Your task to perform on an android device: empty trash in the gmail app Image 0: 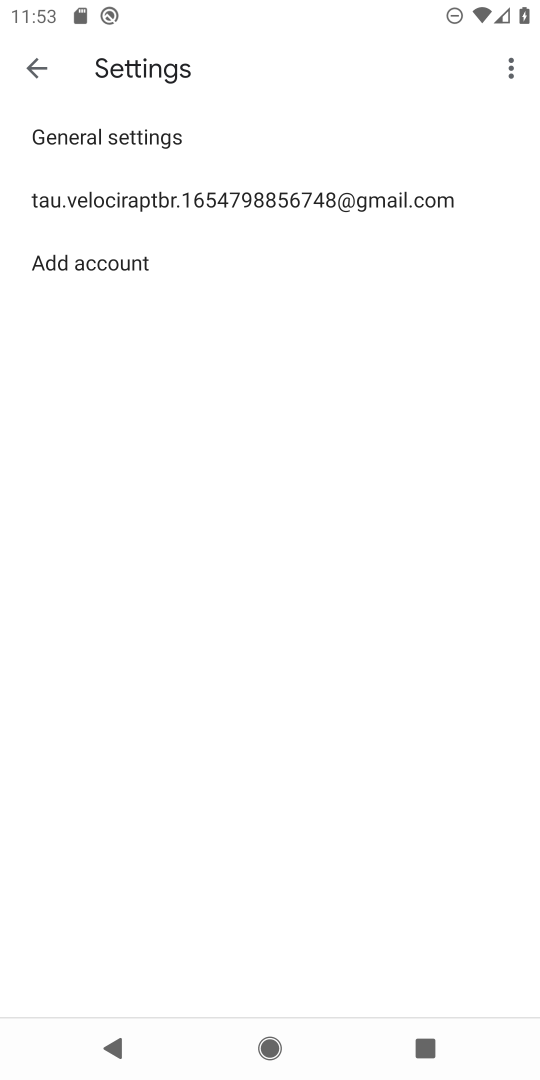
Step 0: press back button
Your task to perform on an android device: empty trash in the gmail app Image 1: 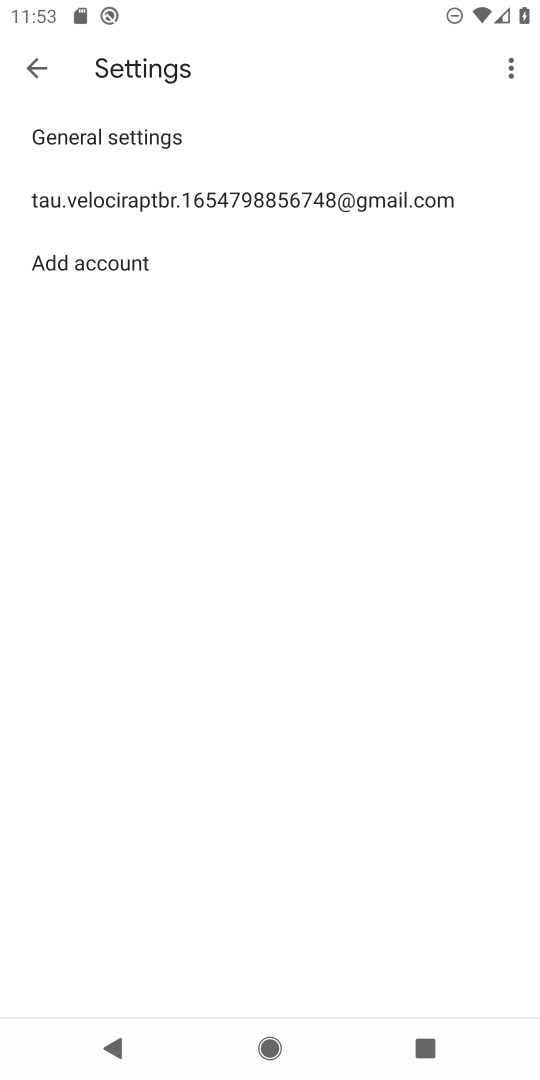
Step 1: press back button
Your task to perform on an android device: empty trash in the gmail app Image 2: 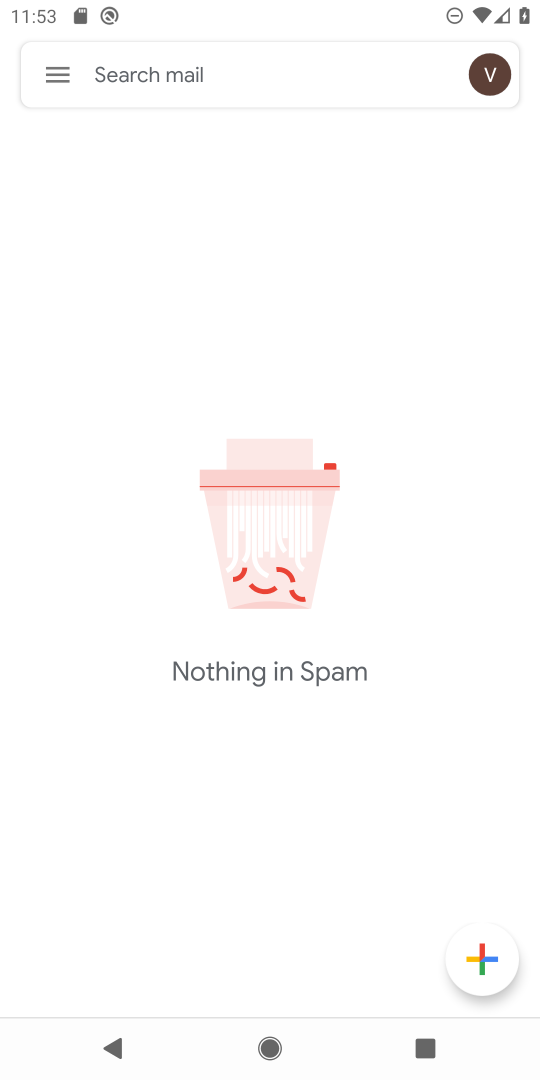
Step 2: press home button
Your task to perform on an android device: empty trash in the gmail app Image 3: 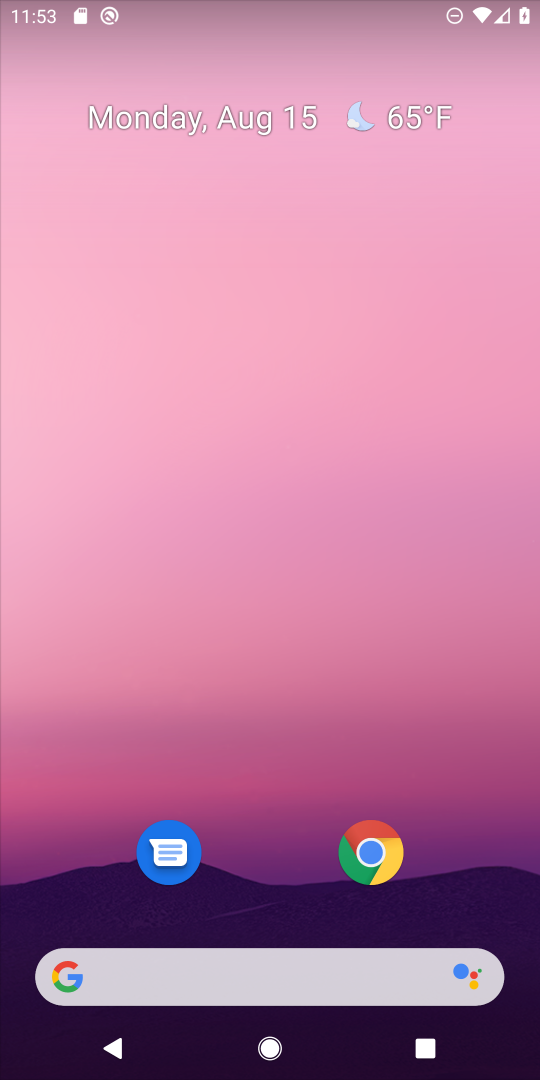
Step 3: drag from (257, 909) to (438, 31)
Your task to perform on an android device: empty trash in the gmail app Image 4: 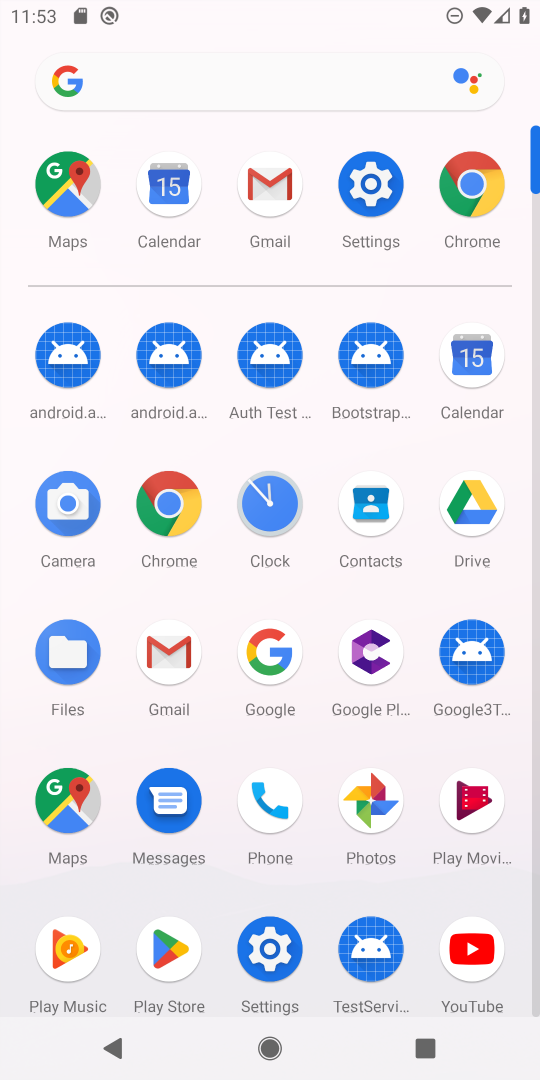
Step 4: click (274, 174)
Your task to perform on an android device: empty trash in the gmail app Image 5: 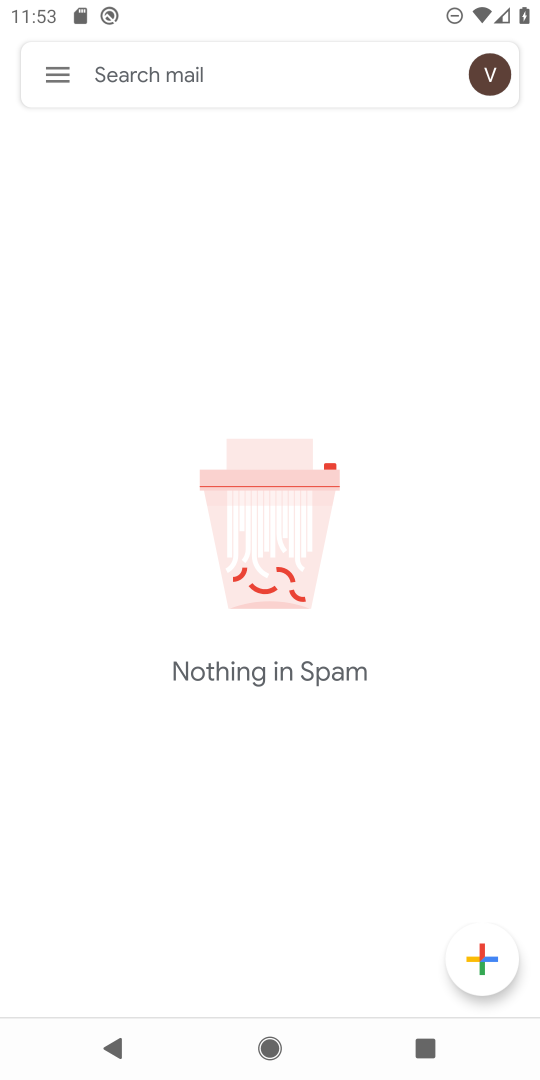
Step 5: click (59, 75)
Your task to perform on an android device: empty trash in the gmail app Image 6: 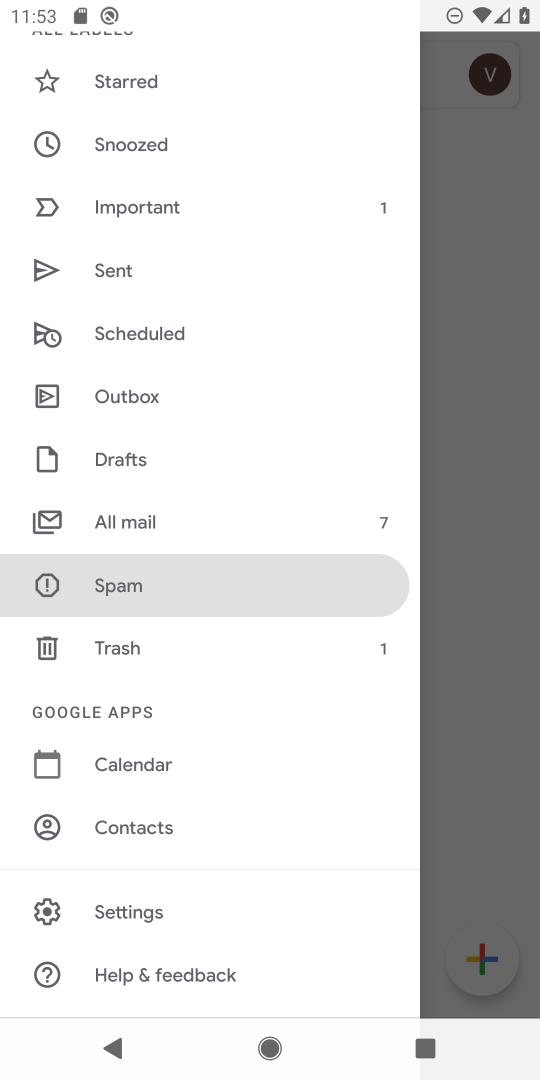
Step 6: click (125, 646)
Your task to perform on an android device: empty trash in the gmail app Image 7: 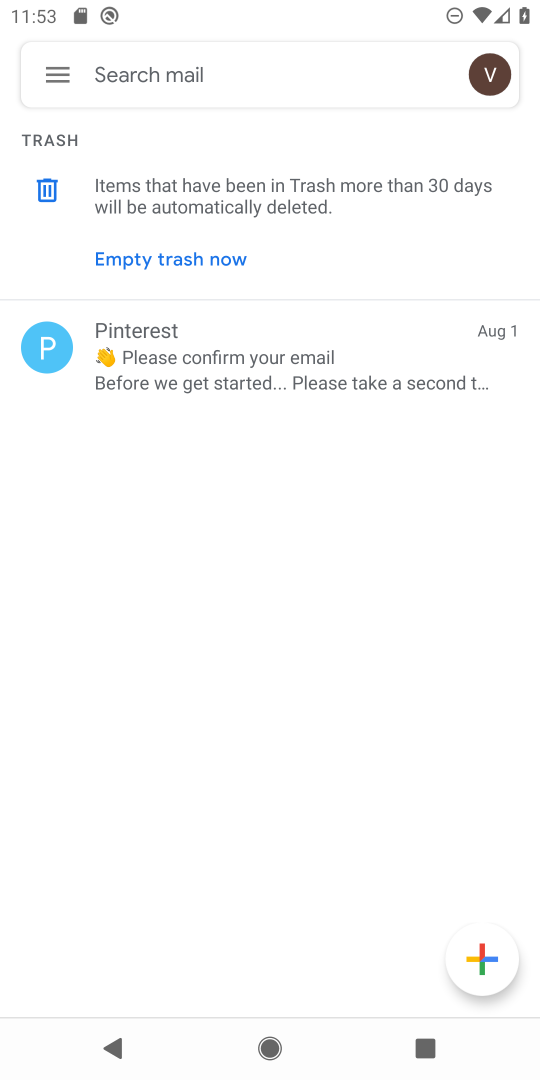
Step 7: click (189, 267)
Your task to perform on an android device: empty trash in the gmail app Image 8: 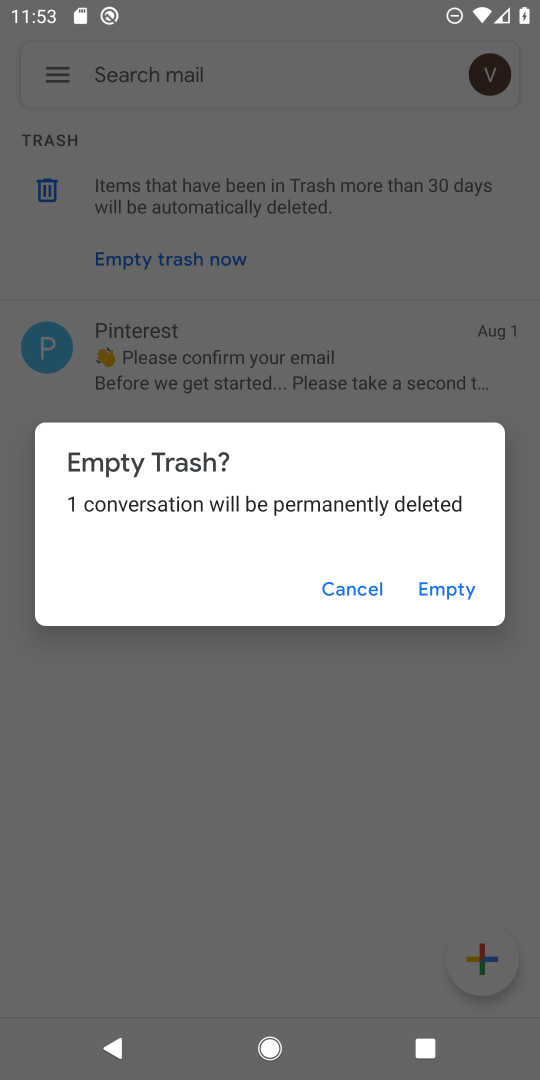
Step 8: click (463, 581)
Your task to perform on an android device: empty trash in the gmail app Image 9: 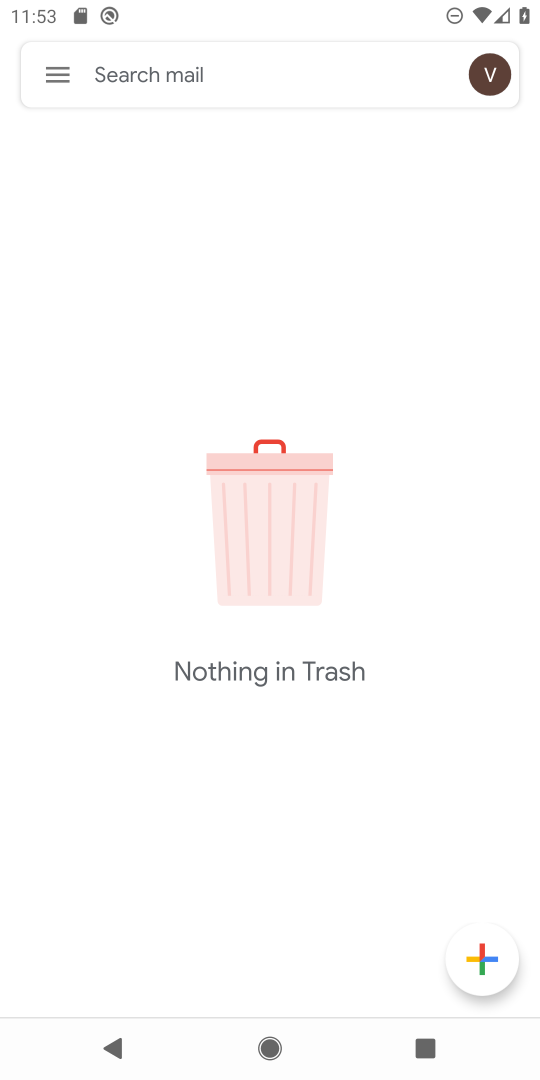
Step 9: task complete